Your task to perform on an android device: Open sound settings Image 0: 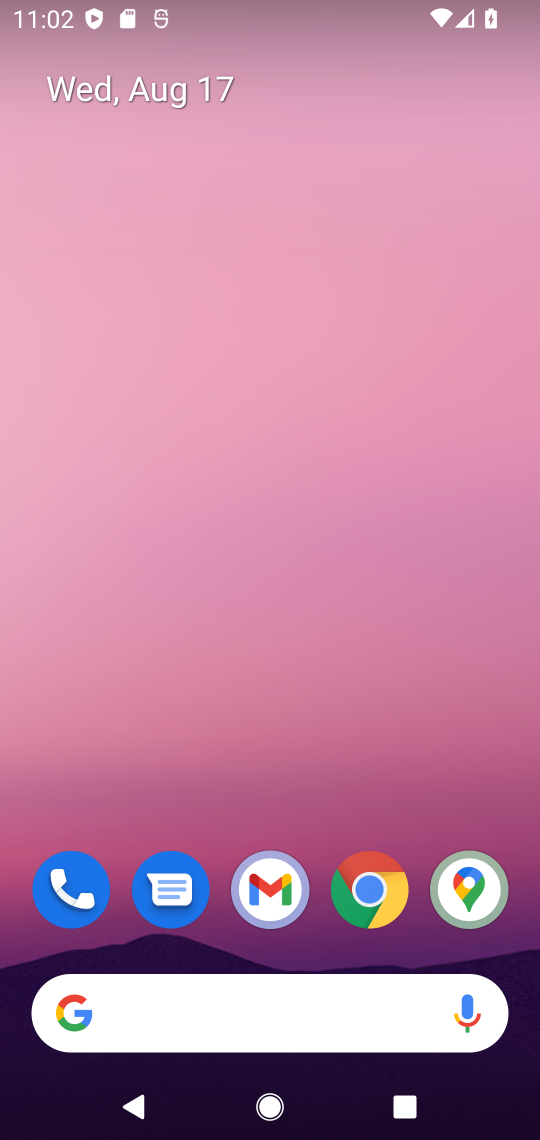
Step 0: drag from (246, 818) to (316, 2)
Your task to perform on an android device: Open sound settings Image 1: 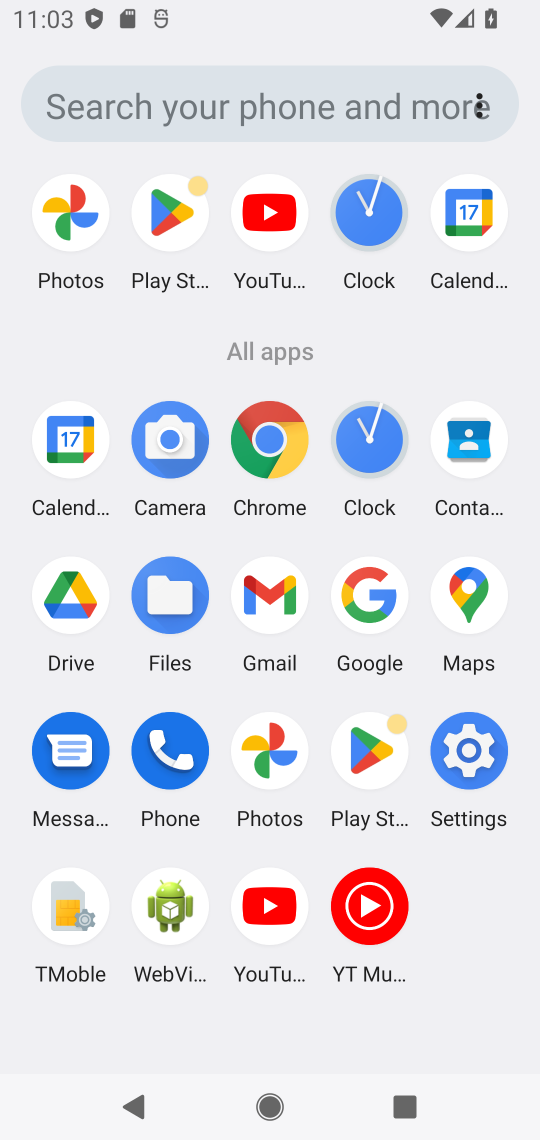
Step 1: click (467, 744)
Your task to perform on an android device: Open sound settings Image 2: 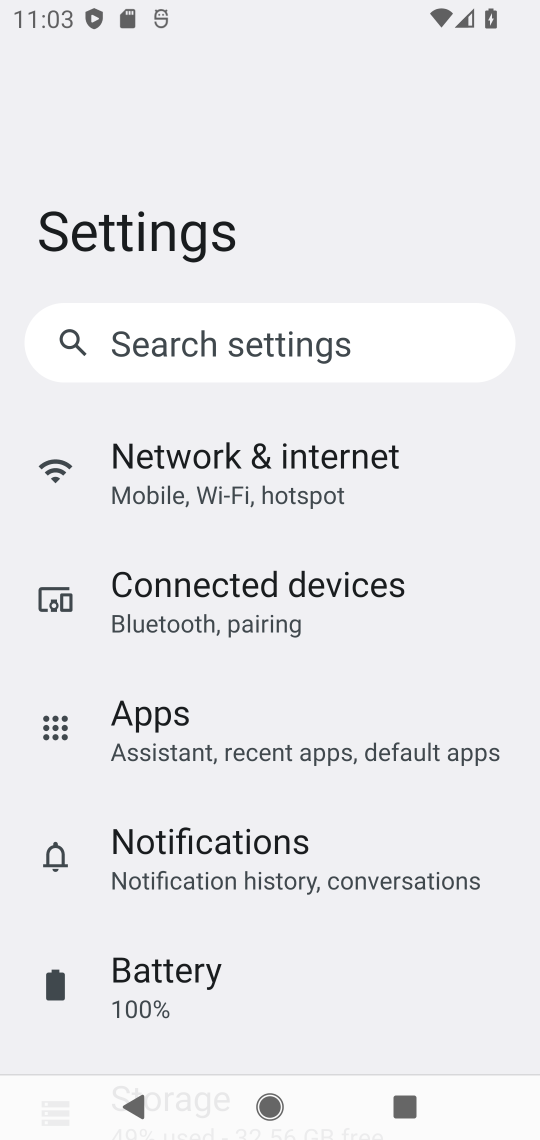
Step 2: drag from (400, 924) to (446, 43)
Your task to perform on an android device: Open sound settings Image 3: 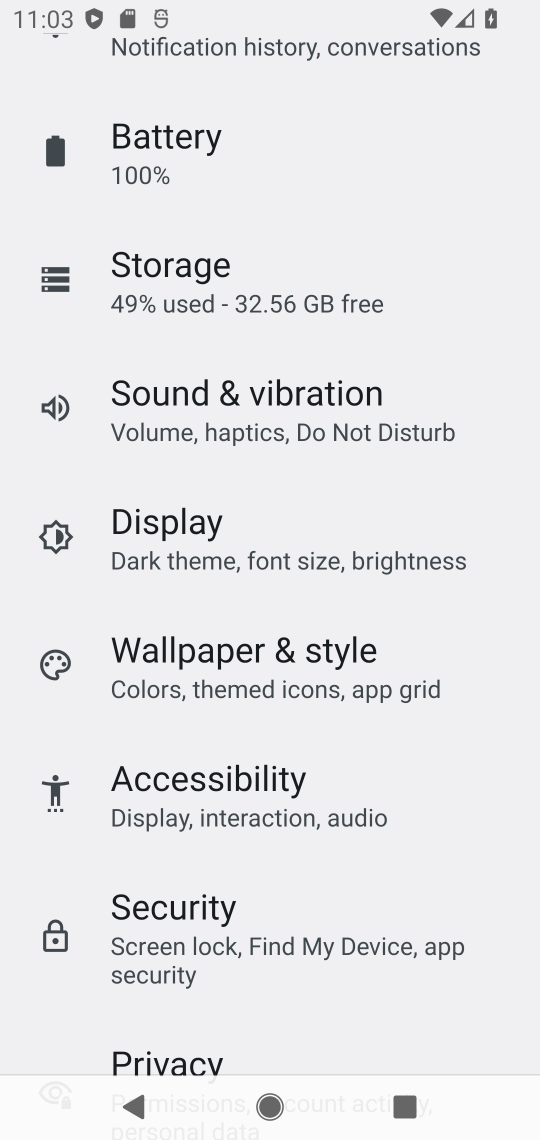
Step 3: click (346, 402)
Your task to perform on an android device: Open sound settings Image 4: 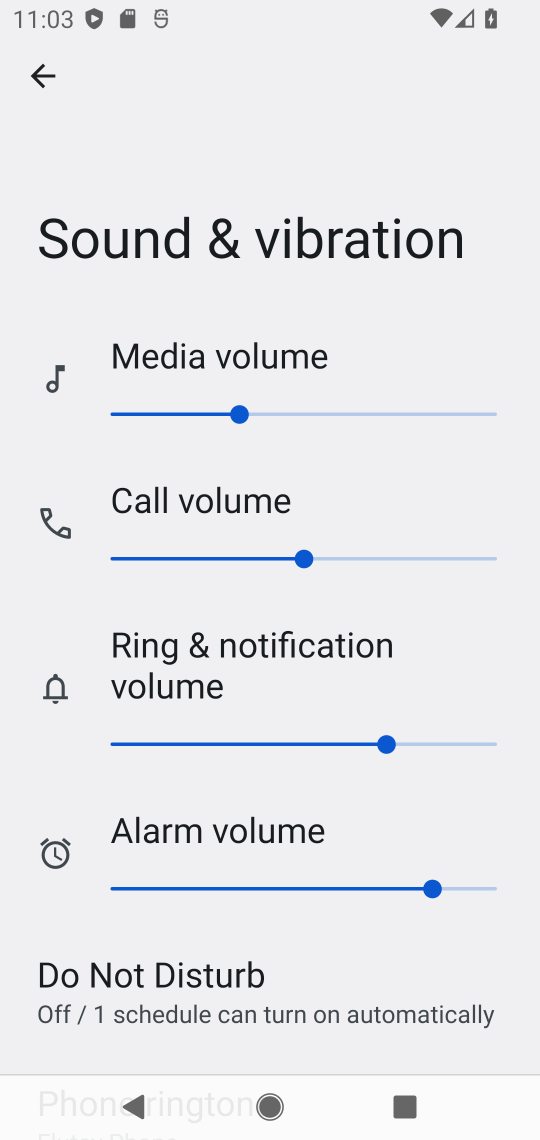
Step 4: task complete